Your task to perform on an android device: Open Google Image 0: 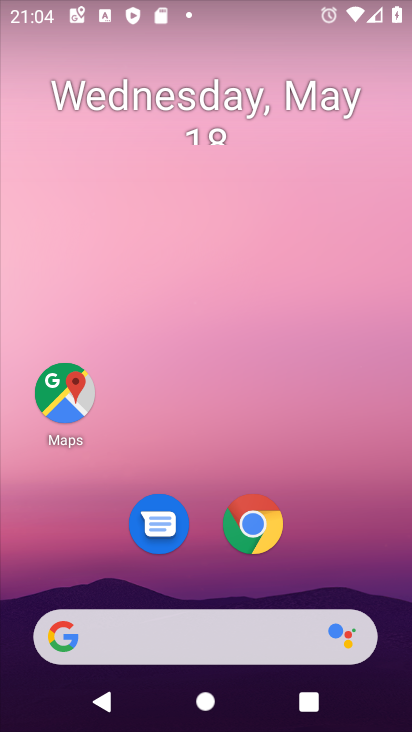
Step 0: click (205, 641)
Your task to perform on an android device: Open Google Image 1: 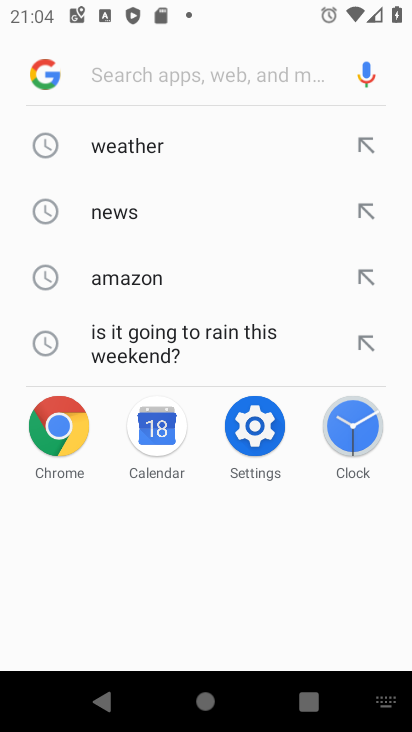
Step 1: click (45, 70)
Your task to perform on an android device: Open Google Image 2: 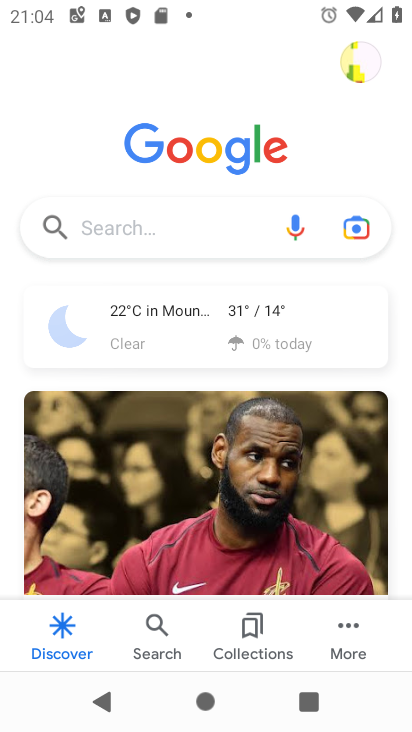
Step 2: task complete